Your task to perform on an android device: Open Google Image 0: 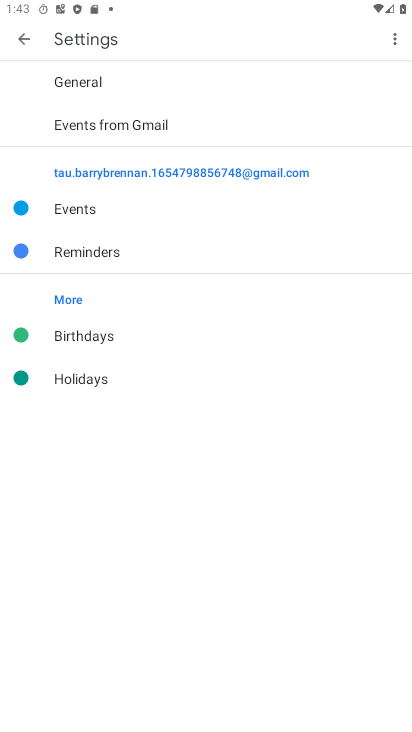
Step 0: press home button
Your task to perform on an android device: Open Google Image 1: 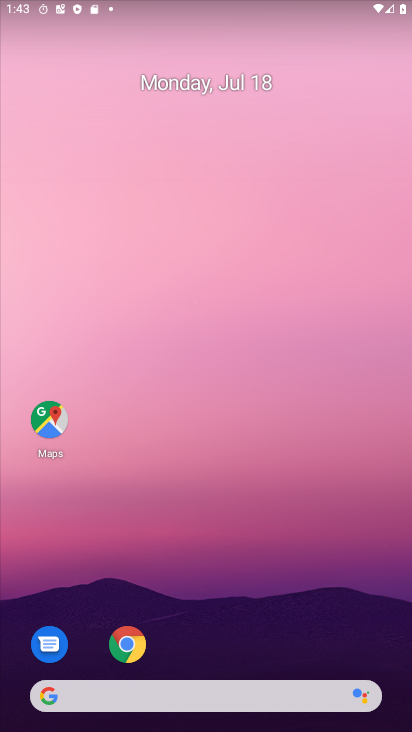
Step 1: drag from (258, 579) to (272, 42)
Your task to perform on an android device: Open Google Image 2: 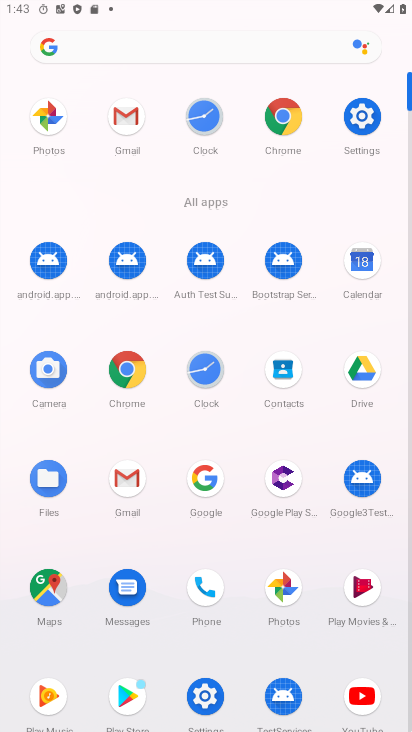
Step 2: click (208, 476)
Your task to perform on an android device: Open Google Image 3: 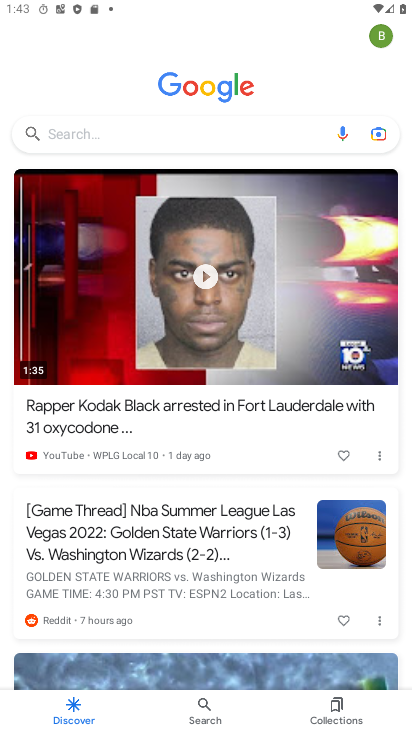
Step 3: task complete